Your task to perform on an android device: Go to ESPN.com Image 0: 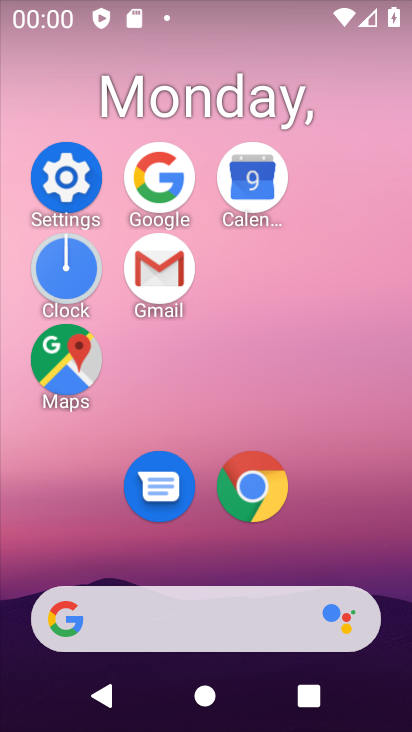
Step 0: click (270, 489)
Your task to perform on an android device: Go to ESPN.com Image 1: 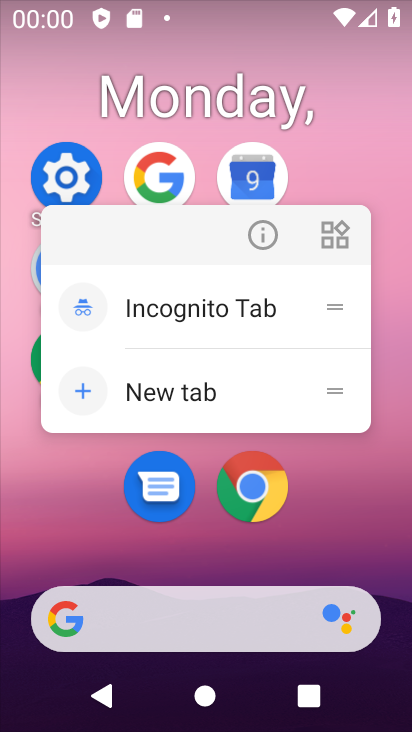
Step 1: click (270, 489)
Your task to perform on an android device: Go to ESPN.com Image 2: 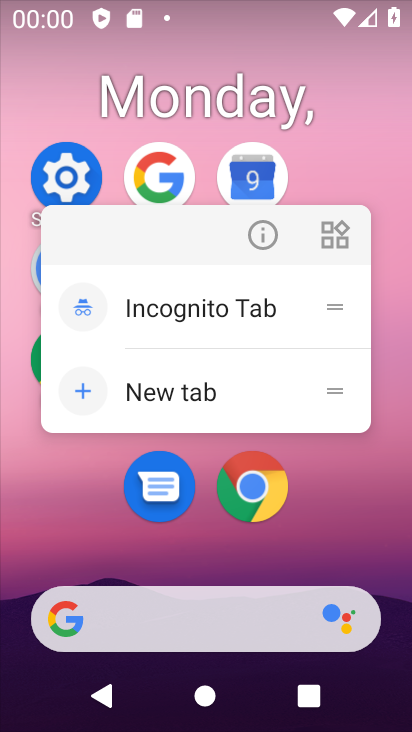
Step 2: click (270, 489)
Your task to perform on an android device: Go to ESPN.com Image 3: 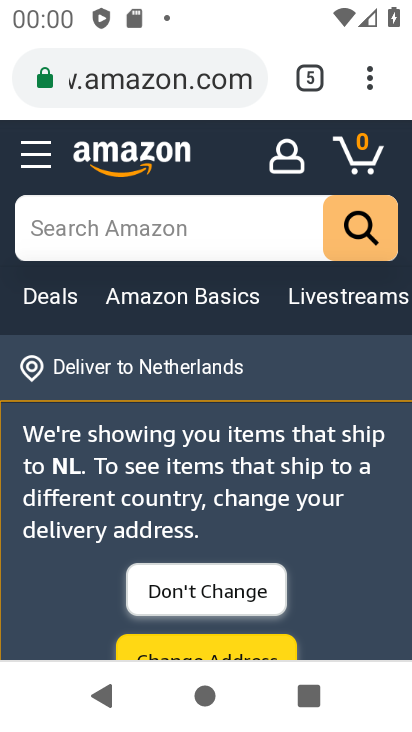
Step 3: click (302, 83)
Your task to perform on an android device: Go to ESPN.com Image 4: 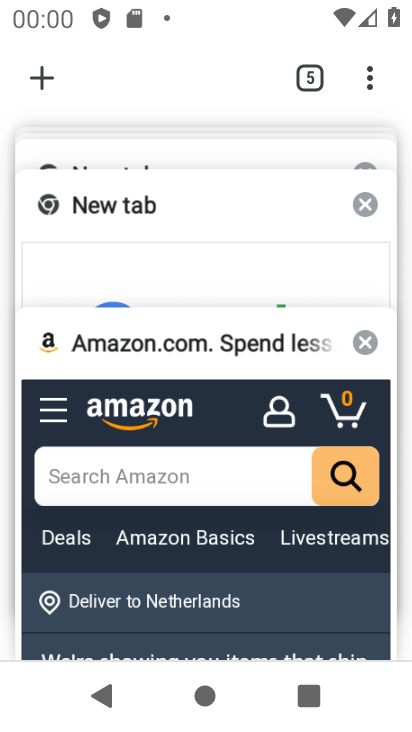
Step 4: click (27, 81)
Your task to perform on an android device: Go to ESPN.com Image 5: 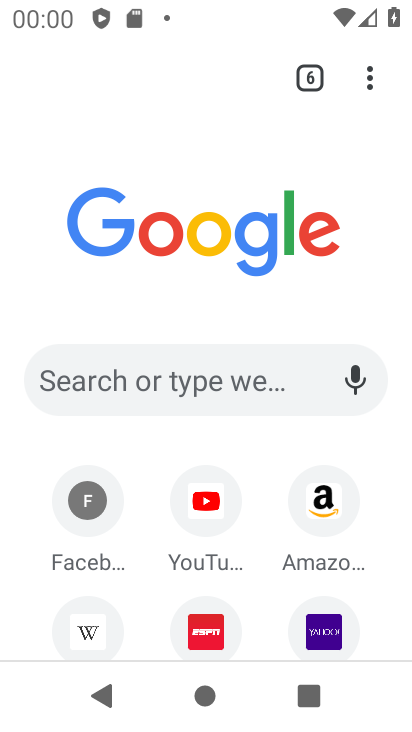
Step 5: click (217, 626)
Your task to perform on an android device: Go to ESPN.com Image 6: 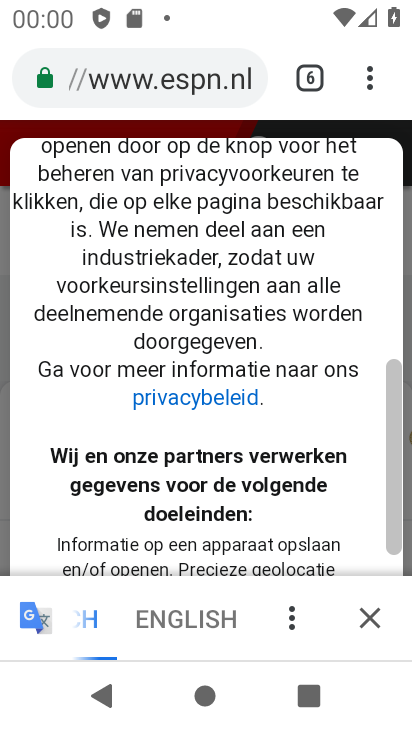
Step 6: task complete